Your task to perform on an android device: Check the news Image 0: 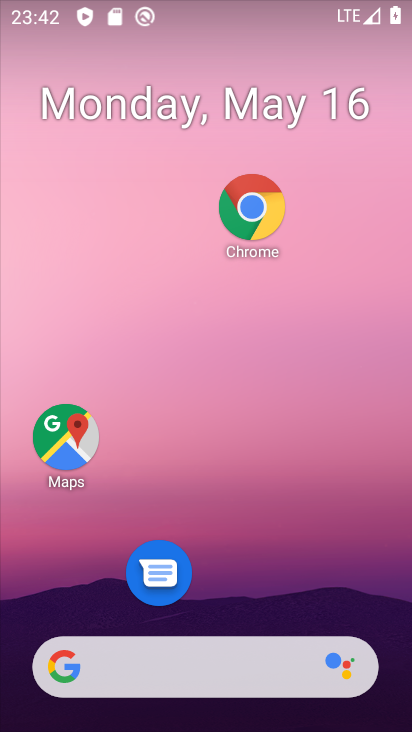
Step 0: drag from (190, 549) to (205, 49)
Your task to perform on an android device: Check the news Image 1: 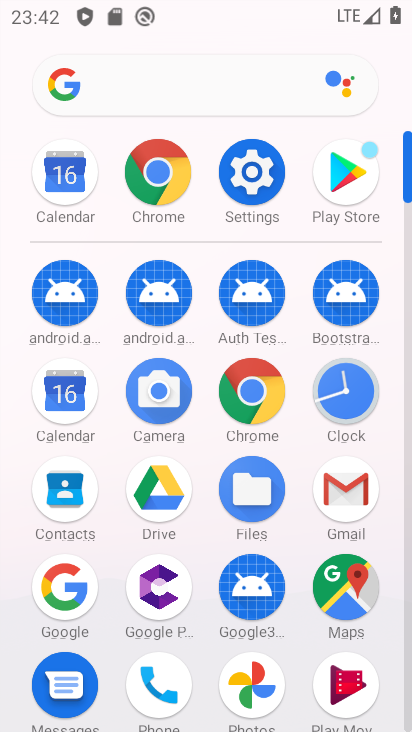
Step 1: click (235, 380)
Your task to perform on an android device: Check the news Image 2: 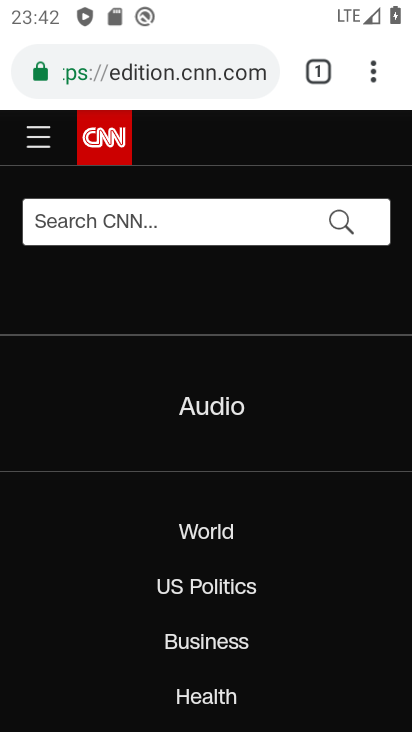
Step 2: click (222, 80)
Your task to perform on an android device: Check the news Image 3: 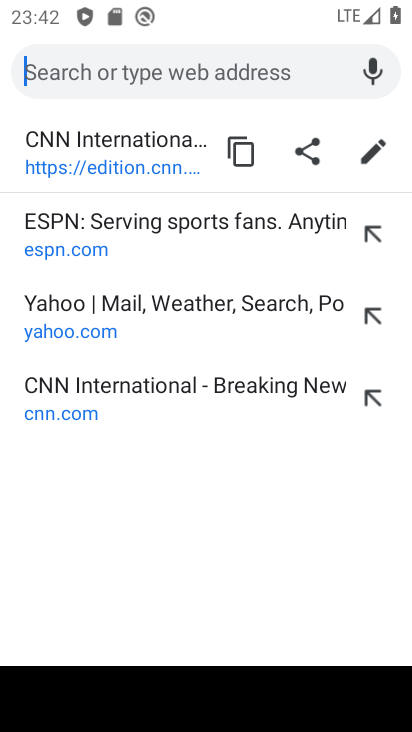
Step 3: type "check the news"
Your task to perform on an android device: Check the news Image 4: 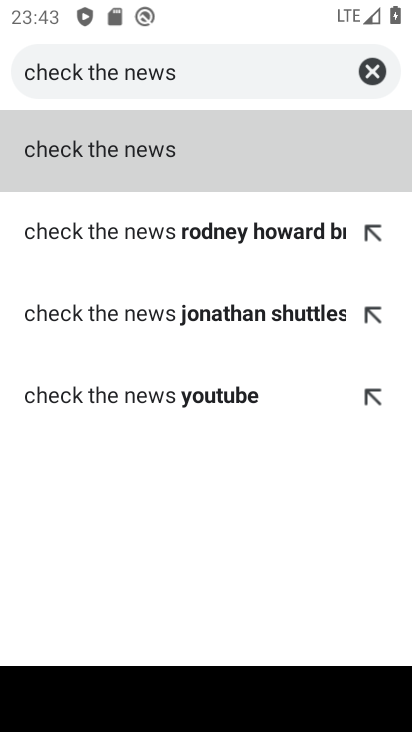
Step 4: click (109, 139)
Your task to perform on an android device: Check the news Image 5: 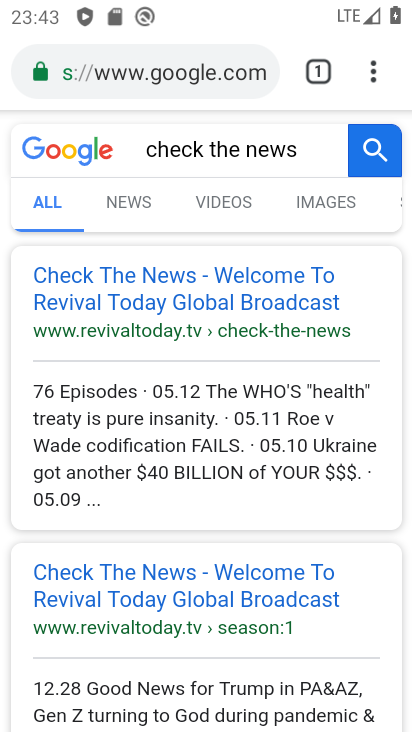
Step 5: task complete